Your task to perform on an android device: change keyboard looks Image 0: 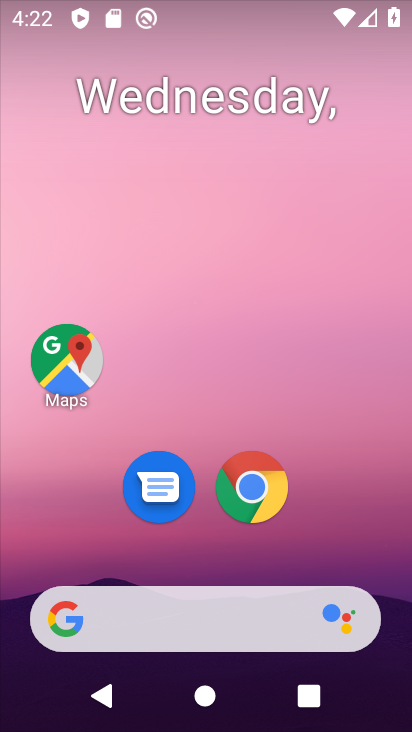
Step 0: drag from (342, 468) to (341, 115)
Your task to perform on an android device: change keyboard looks Image 1: 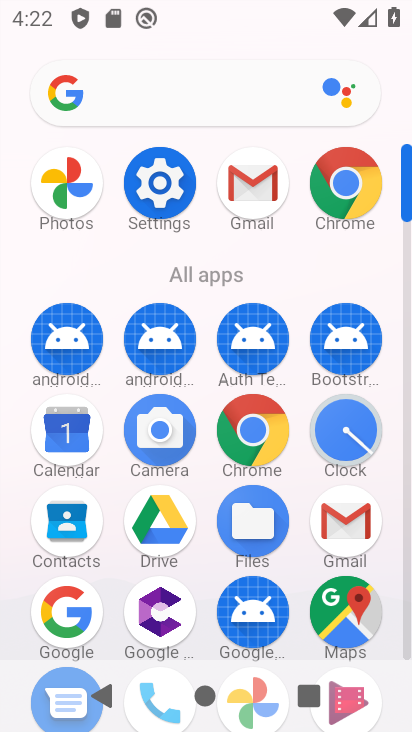
Step 1: click (165, 202)
Your task to perform on an android device: change keyboard looks Image 2: 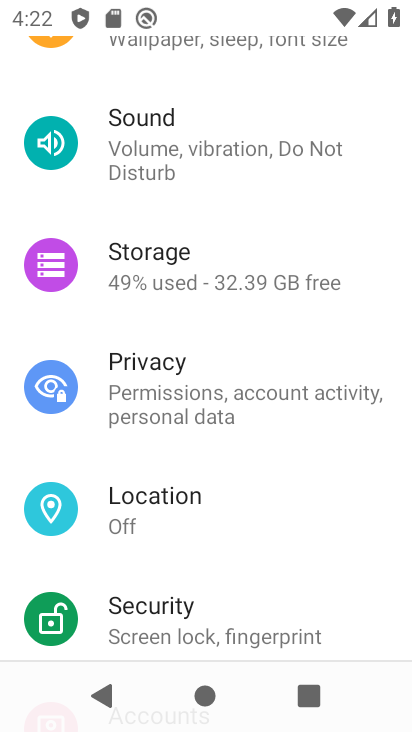
Step 2: drag from (268, 551) to (299, 75)
Your task to perform on an android device: change keyboard looks Image 3: 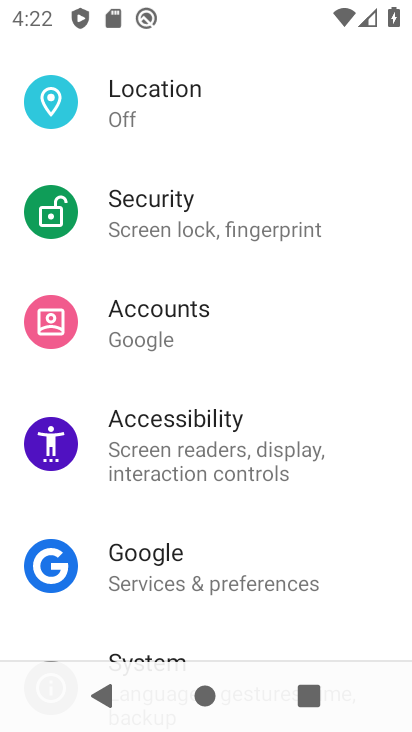
Step 3: drag from (220, 483) to (269, 200)
Your task to perform on an android device: change keyboard looks Image 4: 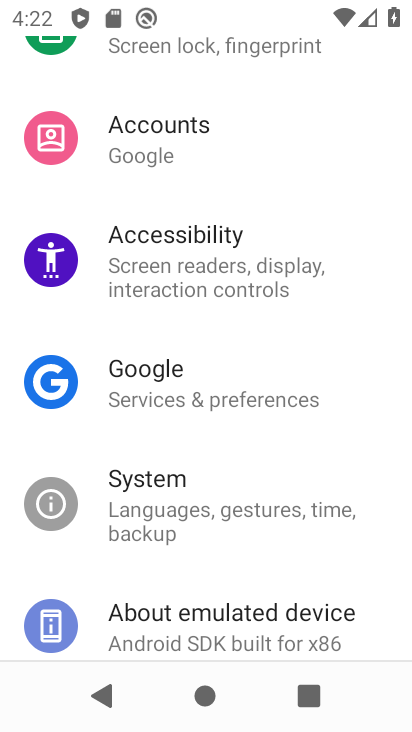
Step 4: click (201, 526)
Your task to perform on an android device: change keyboard looks Image 5: 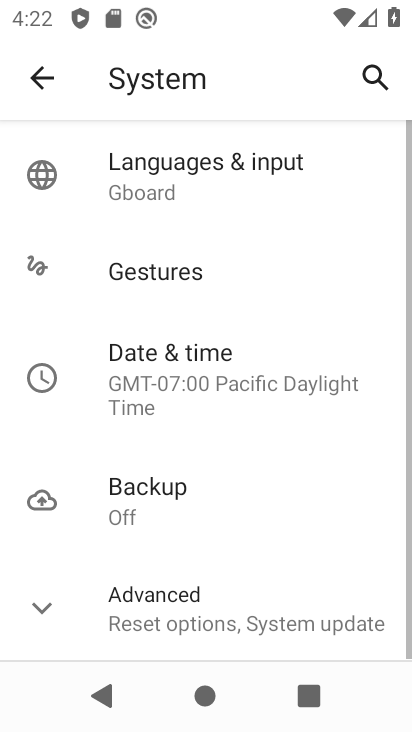
Step 5: click (161, 180)
Your task to perform on an android device: change keyboard looks Image 6: 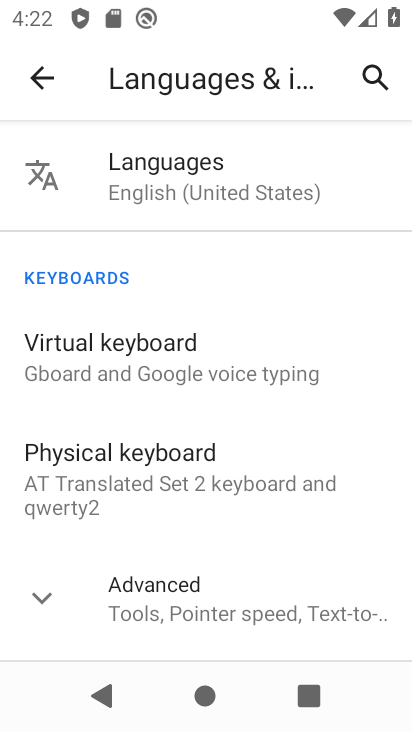
Step 6: click (211, 365)
Your task to perform on an android device: change keyboard looks Image 7: 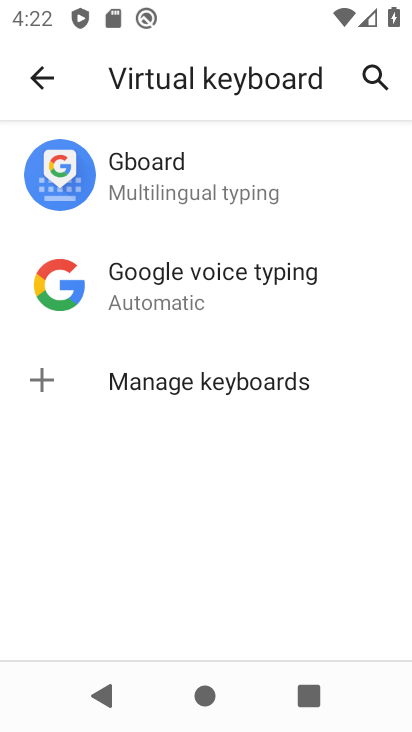
Step 7: click (204, 184)
Your task to perform on an android device: change keyboard looks Image 8: 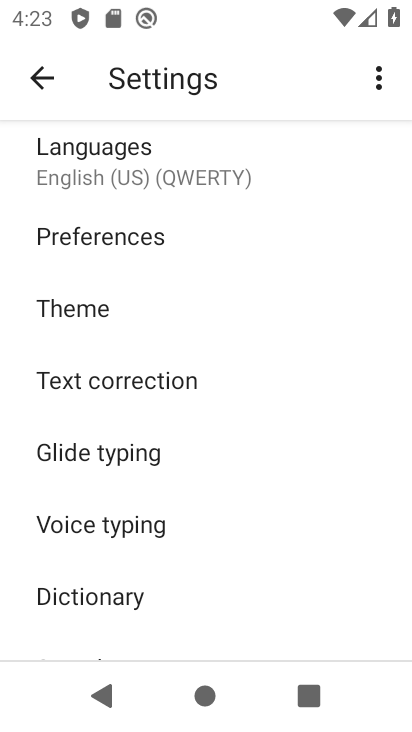
Step 8: click (125, 176)
Your task to perform on an android device: change keyboard looks Image 9: 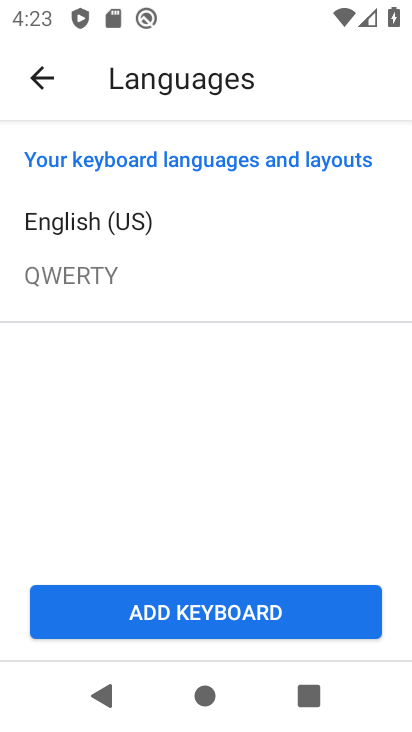
Step 9: click (44, 72)
Your task to perform on an android device: change keyboard looks Image 10: 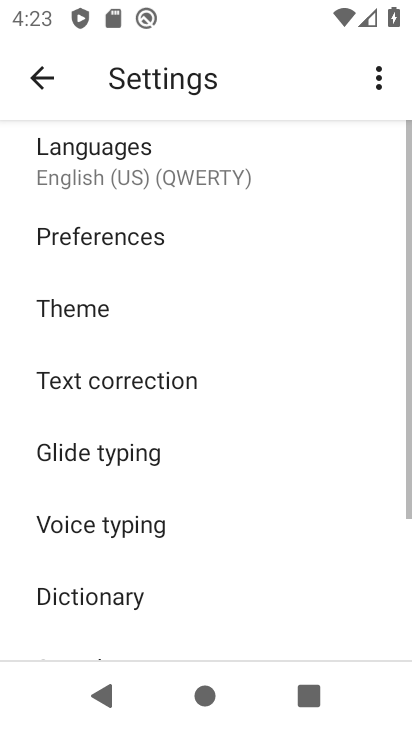
Step 10: click (120, 289)
Your task to perform on an android device: change keyboard looks Image 11: 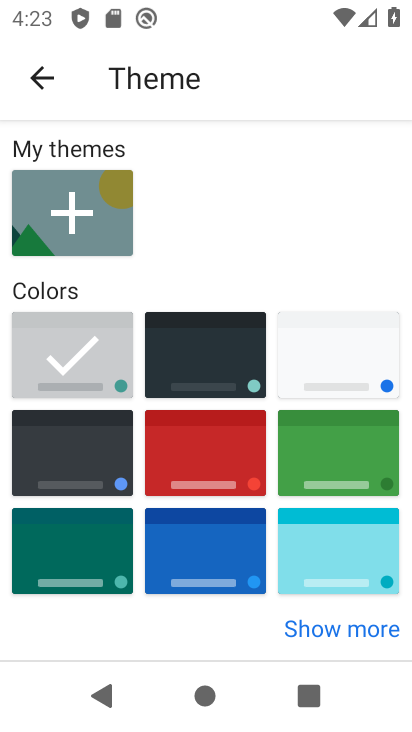
Step 11: click (337, 349)
Your task to perform on an android device: change keyboard looks Image 12: 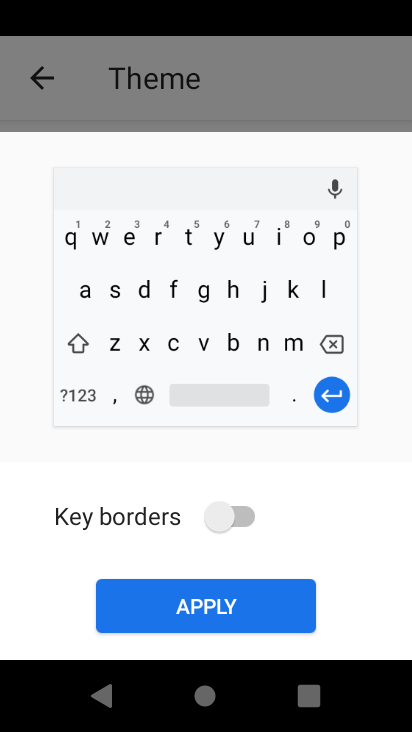
Step 12: click (136, 617)
Your task to perform on an android device: change keyboard looks Image 13: 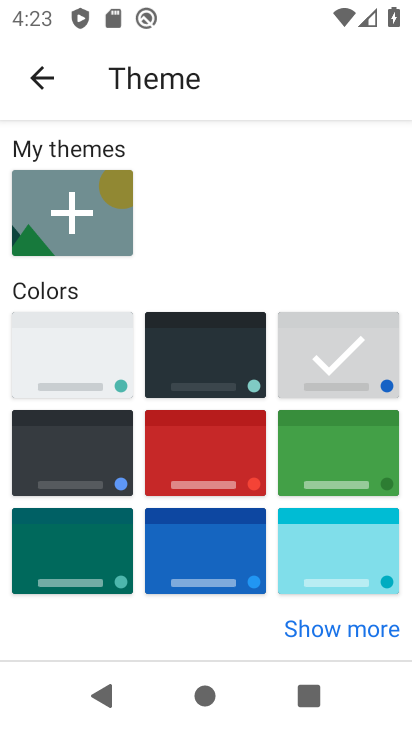
Step 13: task complete